Your task to perform on an android device: toggle translation in the chrome app Image 0: 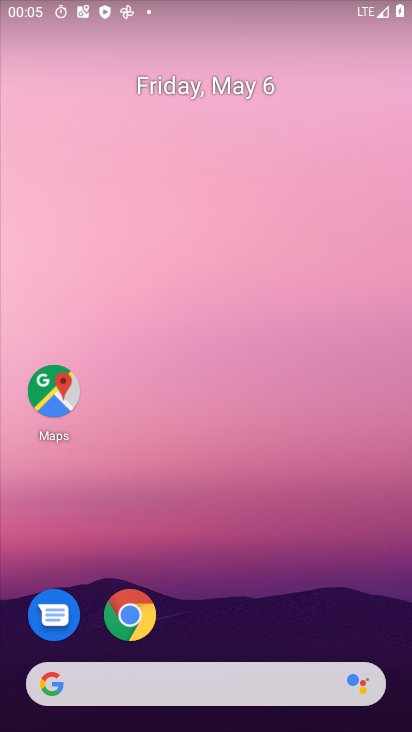
Step 0: drag from (219, 618) to (240, 359)
Your task to perform on an android device: toggle translation in the chrome app Image 1: 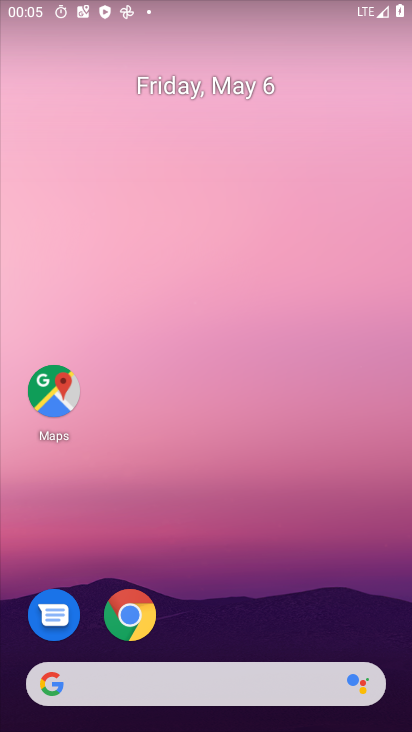
Step 1: click (129, 615)
Your task to perform on an android device: toggle translation in the chrome app Image 2: 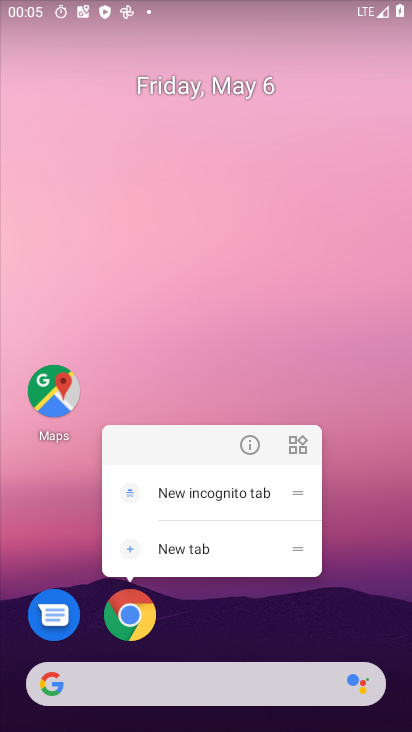
Step 2: click (129, 613)
Your task to perform on an android device: toggle translation in the chrome app Image 3: 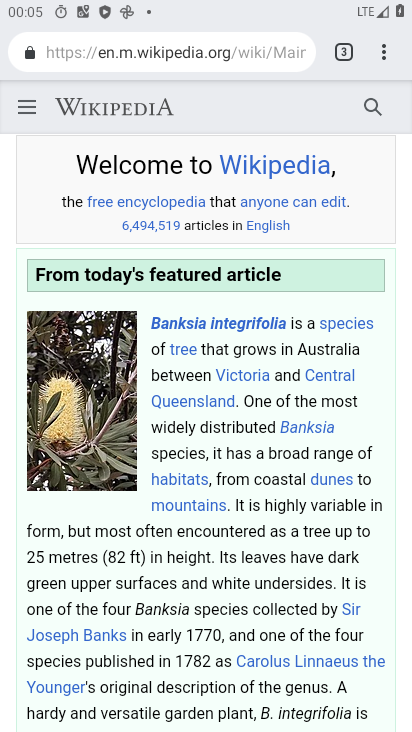
Step 3: click (374, 50)
Your task to perform on an android device: toggle translation in the chrome app Image 4: 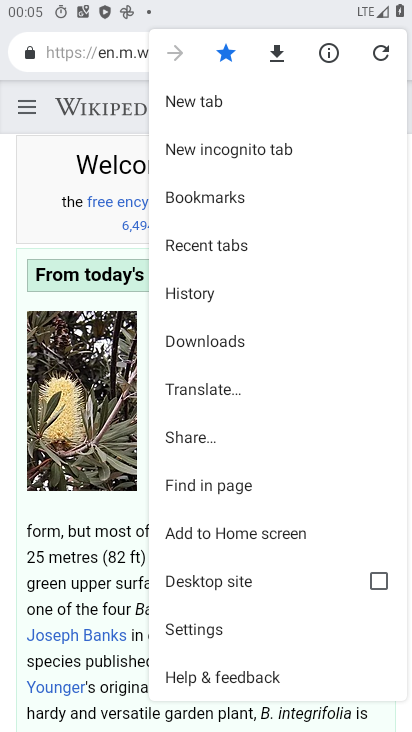
Step 4: click (212, 628)
Your task to perform on an android device: toggle translation in the chrome app Image 5: 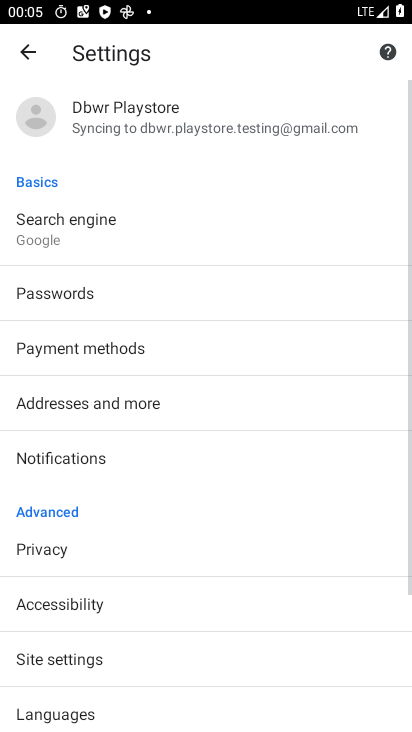
Step 5: drag from (135, 673) to (197, 338)
Your task to perform on an android device: toggle translation in the chrome app Image 6: 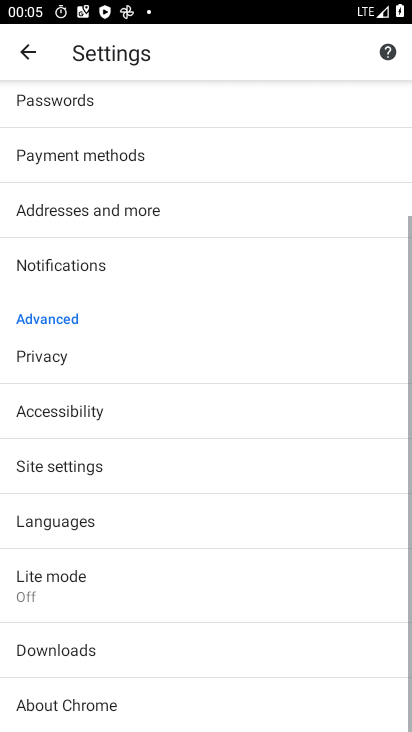
Step 6: click (140, 525)
Your task to perform on an android device: toggle translation in the chrome app Image 7: 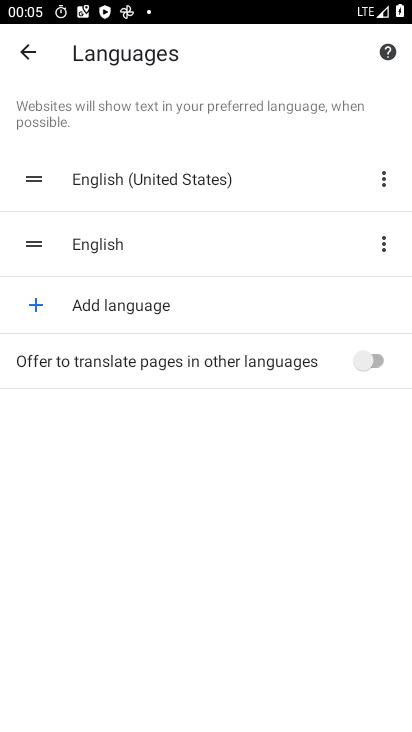
Step 7: click (368, 360)
Your task to perform on an android device: toggle translation in the chrome app Image 8: 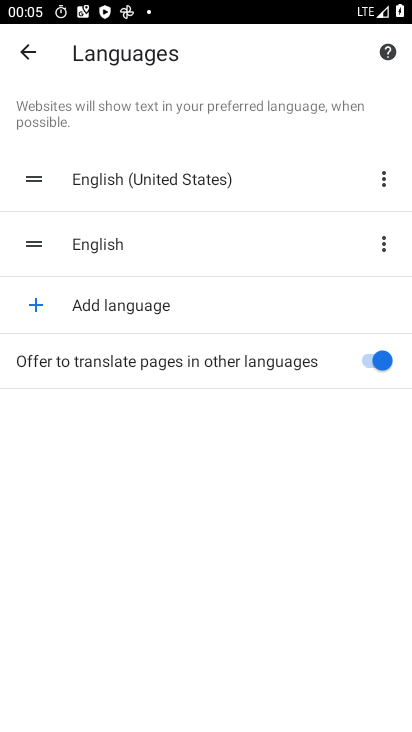
Step 8: task complete